Your task to perform on an android device: Open Google Chrome and open the bookmarks view Image 0: 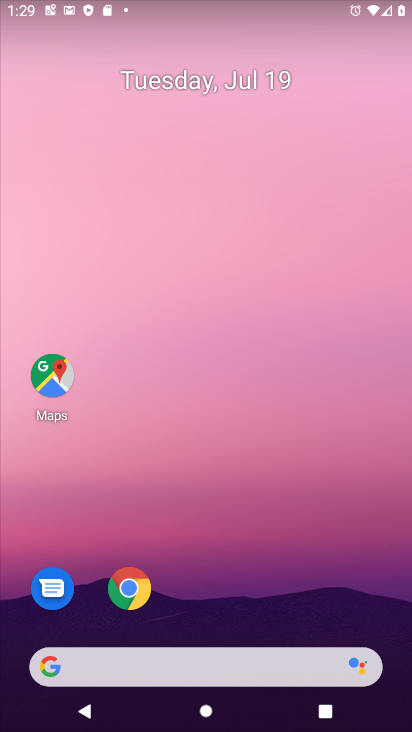
Step 0: drag from (391, 615) to (252, 124)
Your task to perform on an android device: Open Google Chrome and open the bookmarks view Image 1: 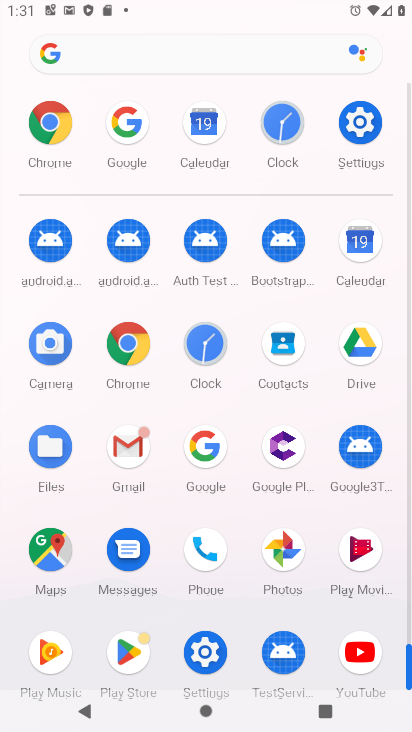
Step 1: click (123, 358)
Your task to perform on an android device: Open Google Chrome and open the bookmarks view Image 2: 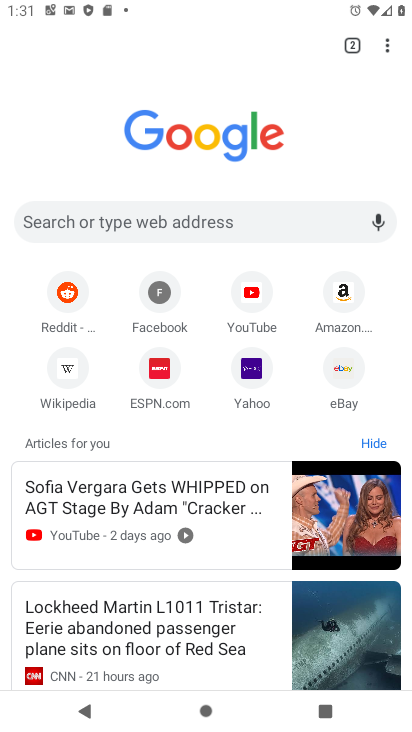
Step 2: click (391, 42)
Your task to perform on an android device: Open Google Chrome and open the bookmarks view Image 3: 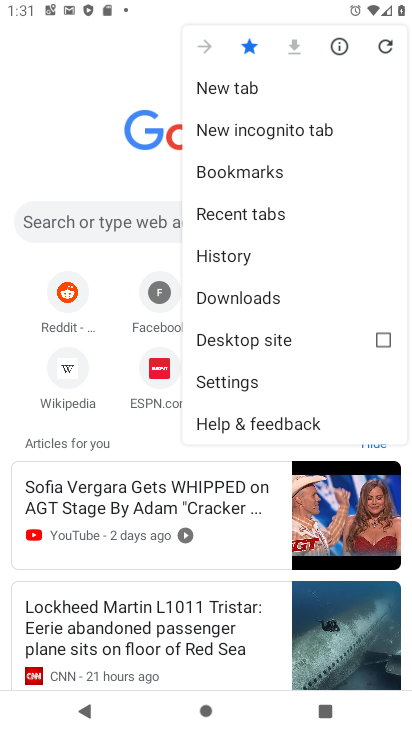
Step 3: click (299, 172)
Your task to perform on an android device: Open Google Chrome and open the bookmarks view Image 4: 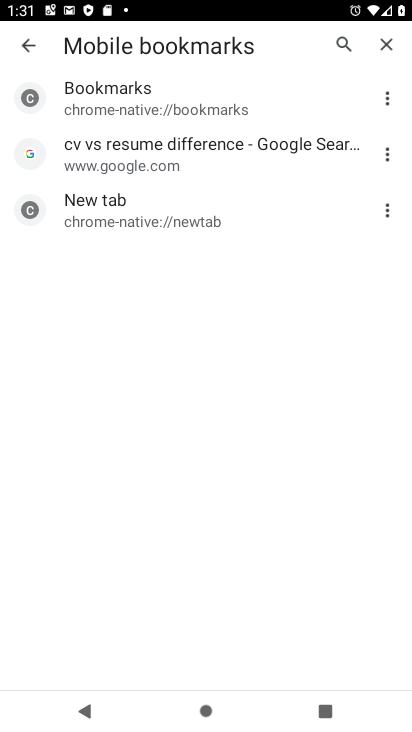
Step 4: task complete